Your task to perform on an android device: turn on the 24-hour format for clock Image 0: 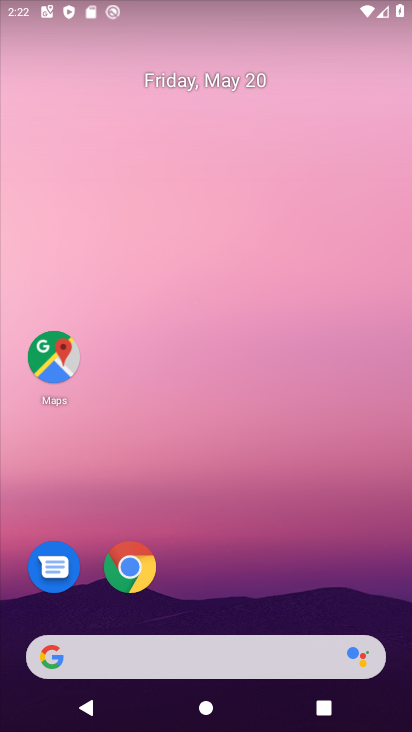
Step 0: drag from (240, 513) to (247, 32)
Your task to perform on an android device: turn on the 24-hour format for clock Image 1: 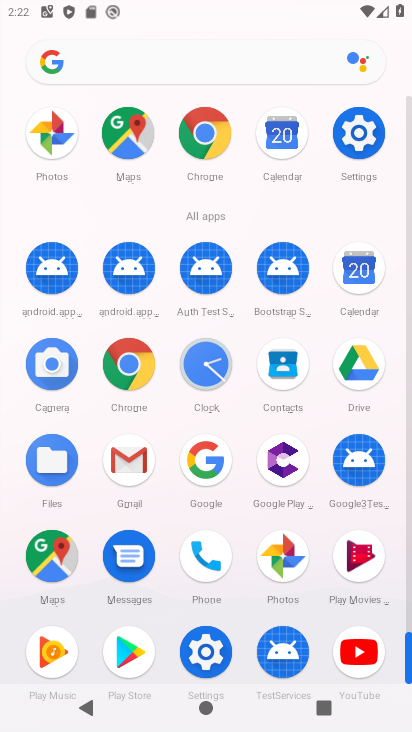
Step 1: drag from (5, 546) to (26, 262)
Your task to perform on an android device: turn on the 24-hour format for clock Image 2: 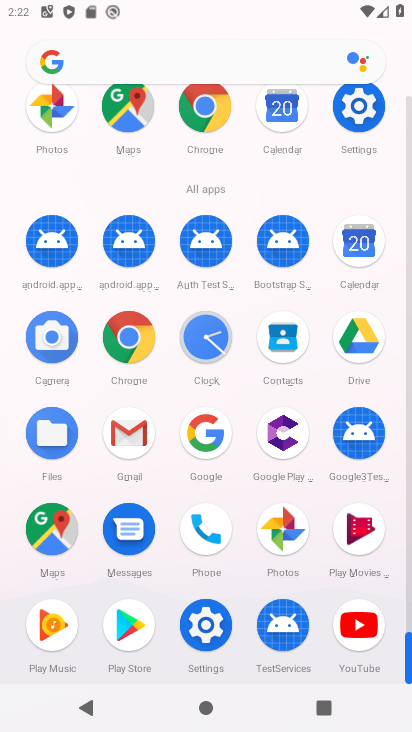
Step 2: click (209, 334)
Your task to perform on an android device: turn on the 24-hour format for clock Image 3: 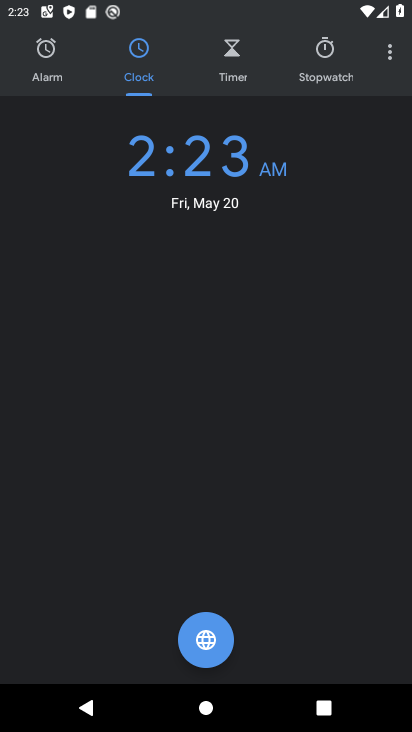
Step 3: drag from (387, 56) to (310, 106)
Your task to perform on an android device: turn on the 24-hour format for clock Image 4: 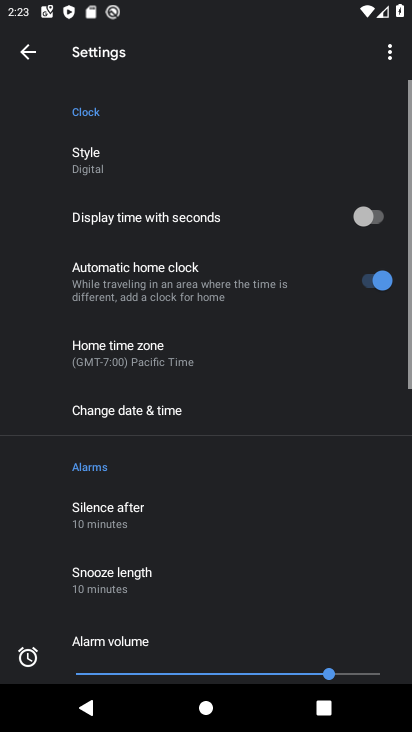
Step 4: click (141, 403)
Your task to perform on an android device: turn on the 24-hour format for clock Image 5: 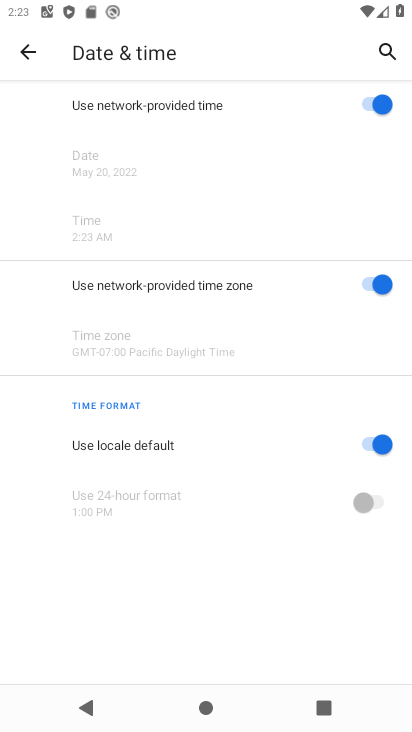
Step 5: click (377, 441)
Your task to perform on an android device: turn on the 24-hour format for clock Image 6: 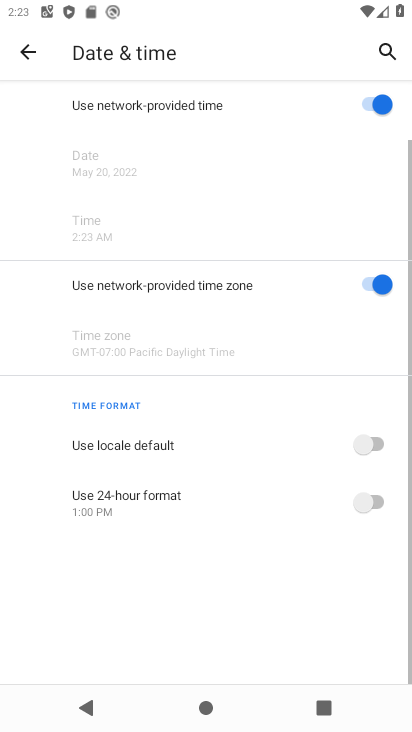
Step 6: click (371, 494)
Your task to perform on an android device: turn on the 24-hour format for clock Image 7: 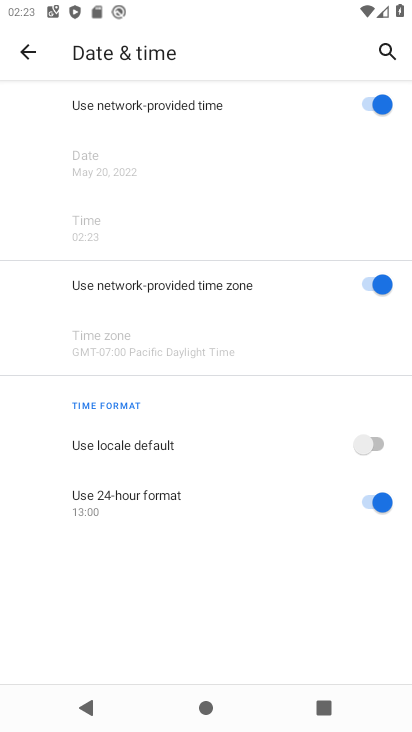
Step 7: task complete